Your task to perform on an android device: turn on notifications settings in the gmail app Image 0: 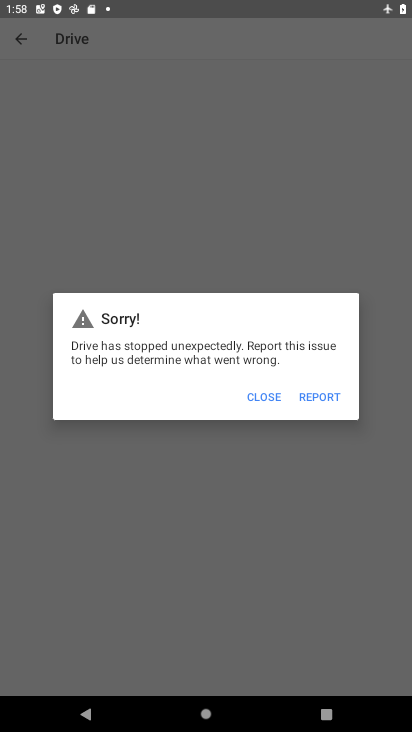
Step 0: press home button
Your task to perform on an android device: turn on notifications settings in the gmail app Image 1: 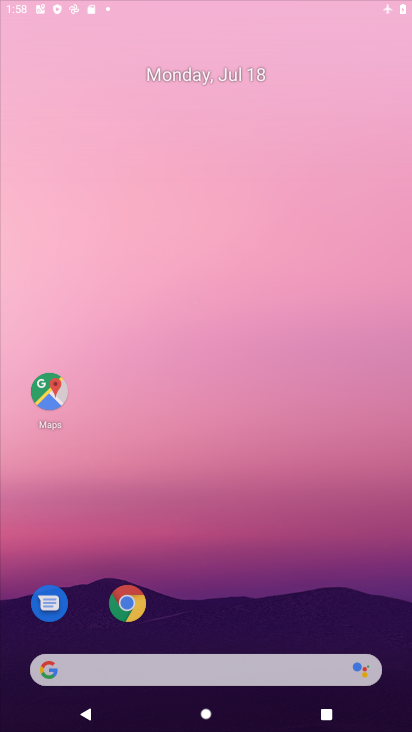
Step 1: drag from (373, 668) to (208, 0)
Your task to perform on an android device: turn on notifications settings in the gmail app Image 2: 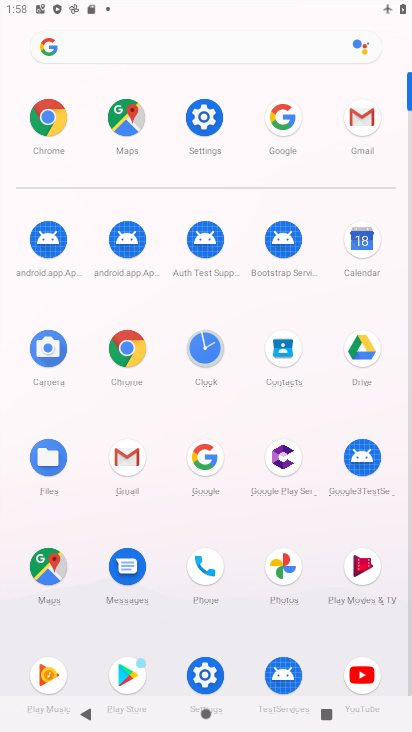
Step 2: click (133, 468)
Your task to perform on an android device: turn on notifications settings in the gmail app Image 3: 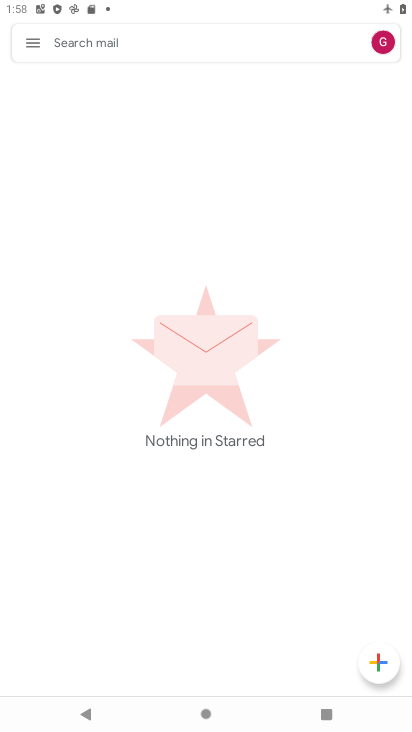
Step 3: click (27, 43)
Your task to perform on an android device: turn on notifications settings in the gmail app Image 4: 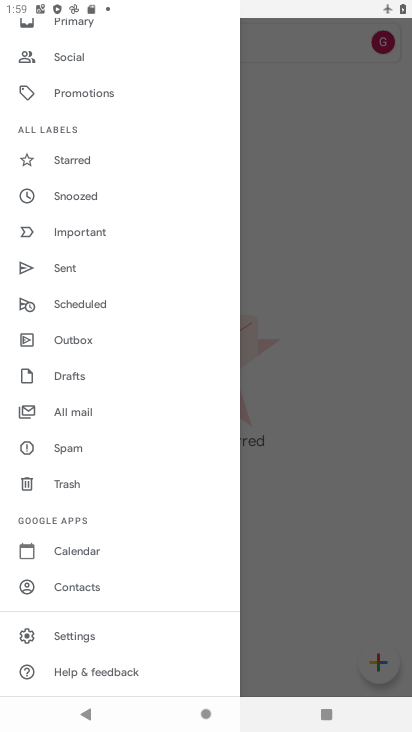
Step 4: click (66, 627)
Your task to perform on an android device: turn on notifications settings in the gmail app Image 5: 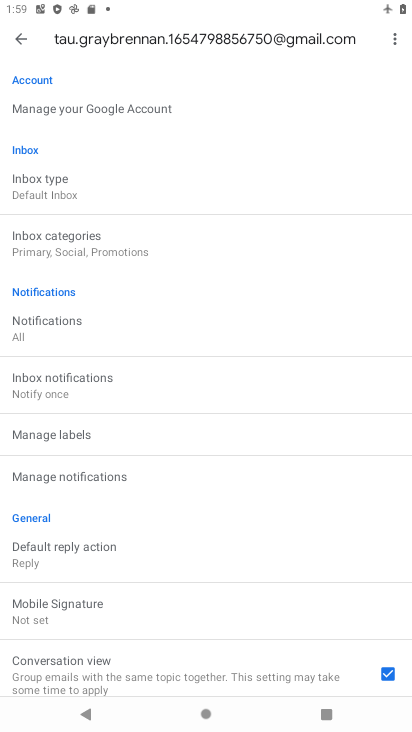
Step 5: click (43, 345)
Your task to perform on an android device: turn on notifications settings in the gmail app Image 6: 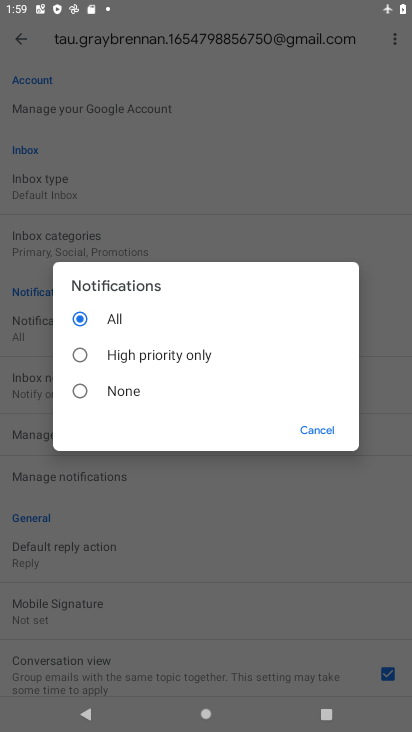
Step 6: task complete